Your task to perform on an android device: Go to accessibility settings Image 0: 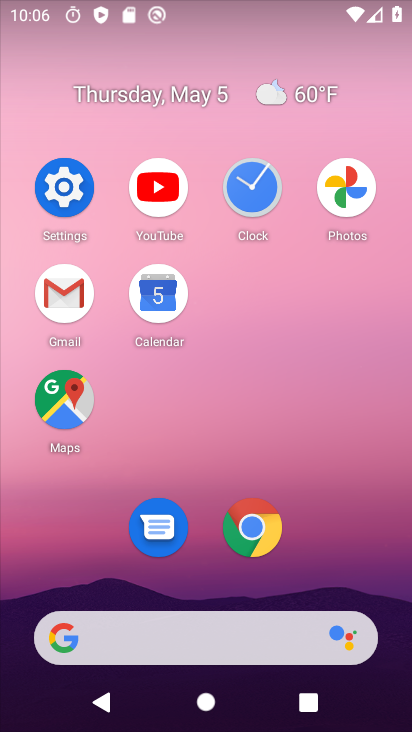
Step 0: click (82, 196)
Your task to perform on an android device: Go to accessibility settings Image 1: 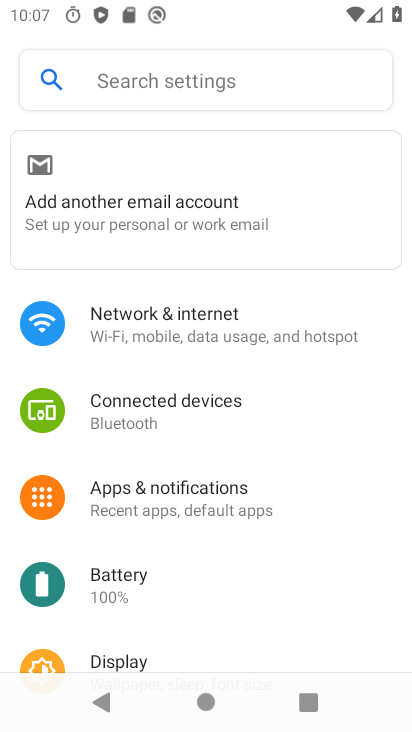
Step 1: drag from (248, 613) to (304, 58)
Your task to perform on an android device: Go to accessibility settings Image 2: 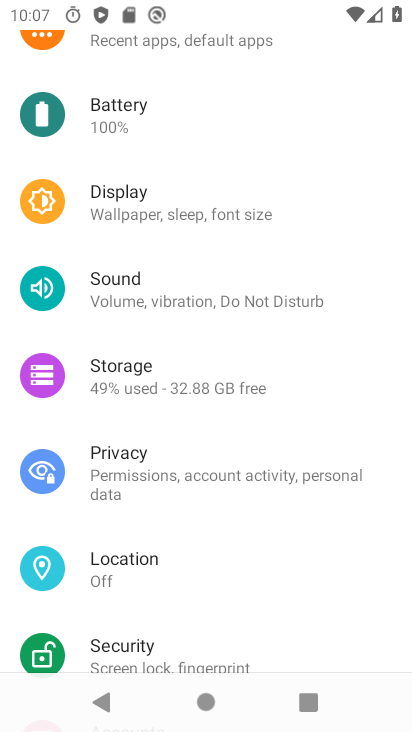
Step 2: drag from (250, 604) to (288, 62)
Your task to perform on an android device: Go to accessibility settings Image 3: 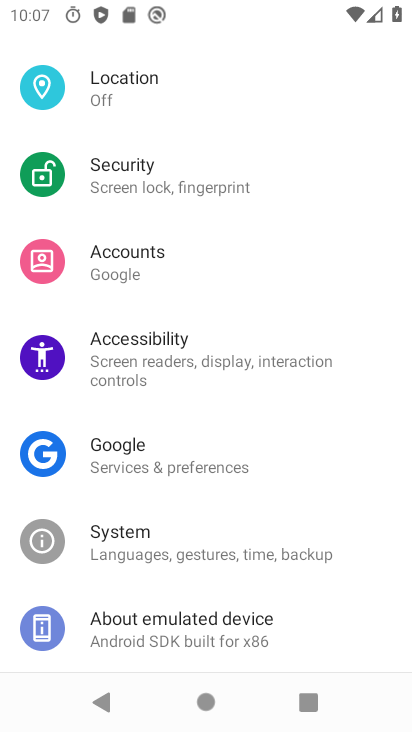
Step 3: drag from (232, 563) to (295, 118)
Your task to perform on an android device: Go to accessibility settings Image 4: 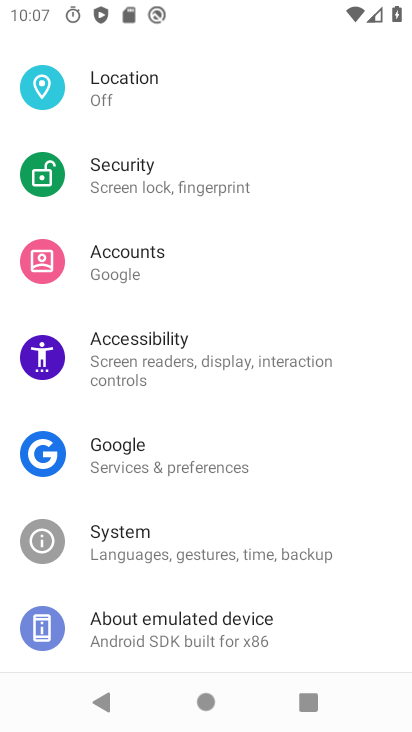
Step 4: click (188, 375)
Your task to perform on an android device: Go to accessibility settings Image 5: 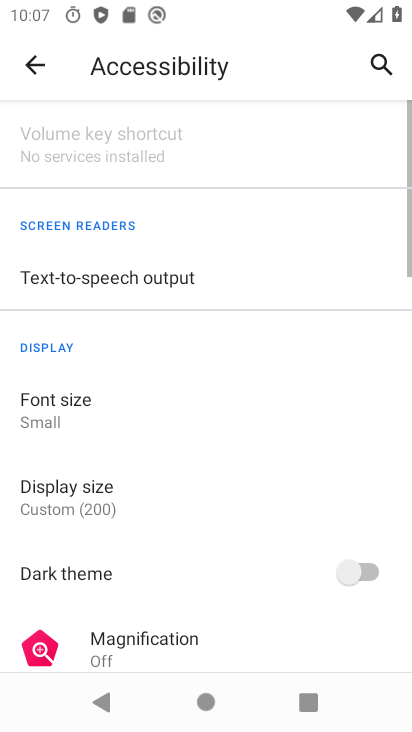
Step 5: task complete